Your task to perform on an android device: turn off notifications settings in the gmail app Image 0: 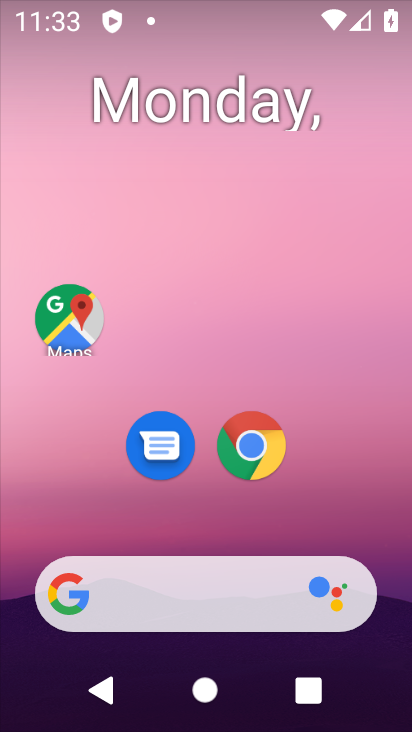
Step 0: drag from (94, 494) to (201, 66)
Your task to perform on an android device: turn off notifications settings in the gmail app Image 1: 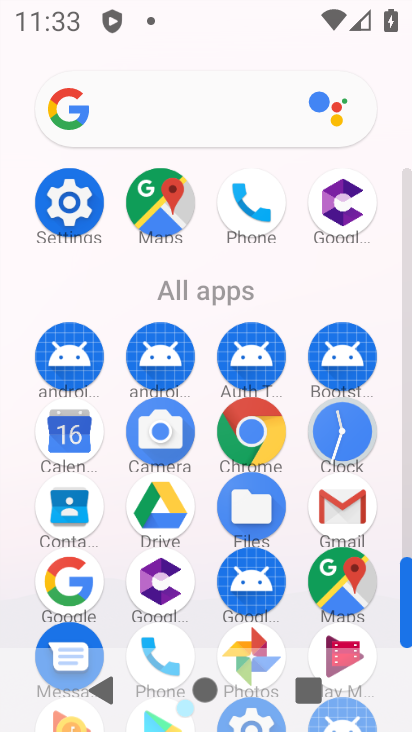
Step 1: drag from (161, 612) to (252, 398)
Your task to perform on an android device: turn off notifications settings in the gmail app Image 2: 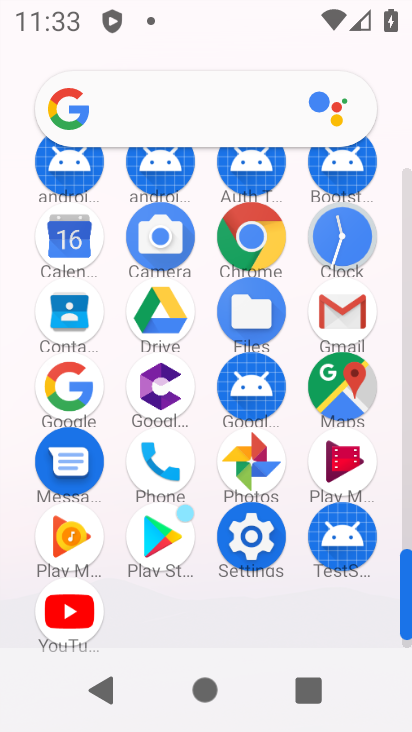
Step 2: click (354, 336)
Your task to perform on an android device: turn off notifications settings in the gmail app Image 3: 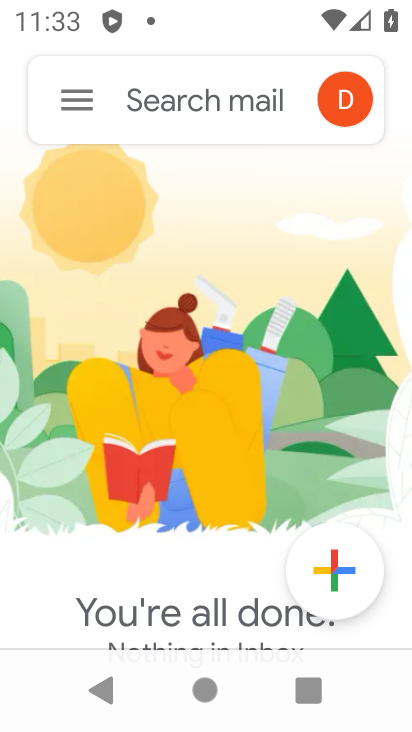
Step 3: click (83, 116)
Your task to perform on an android device: turn off notifications settings in the gmail app Image 4: 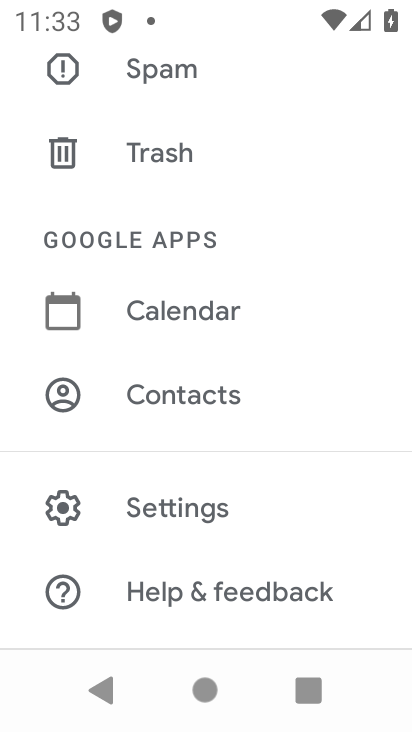
Step 4: click (237, 527)
Your task to perform on an android device: turn off notifications settings in the gmail app Image 5: 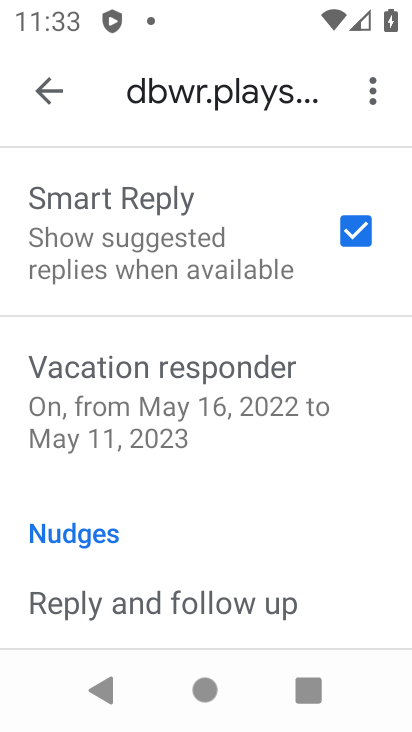
Step 5: drag from (177, 255) to (160, 652)
Your task to perform on an android device: turn off notifications settings in the gmail app Image 6: 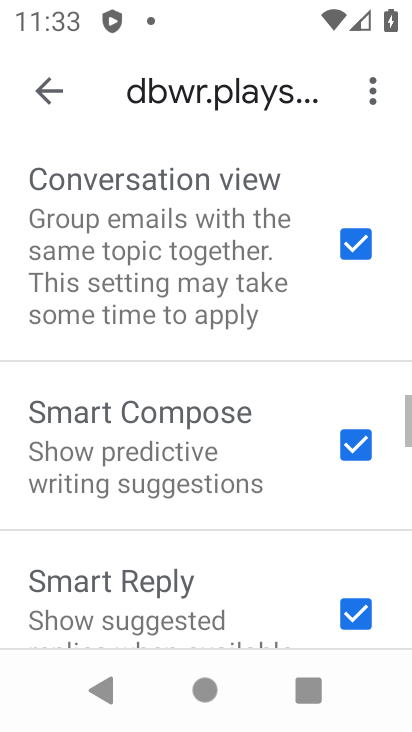
Step 6: drag from (153, 240) to (139, 594)
Your task to perform on an android device: turn off notifications settings in the gmail app Image 7: 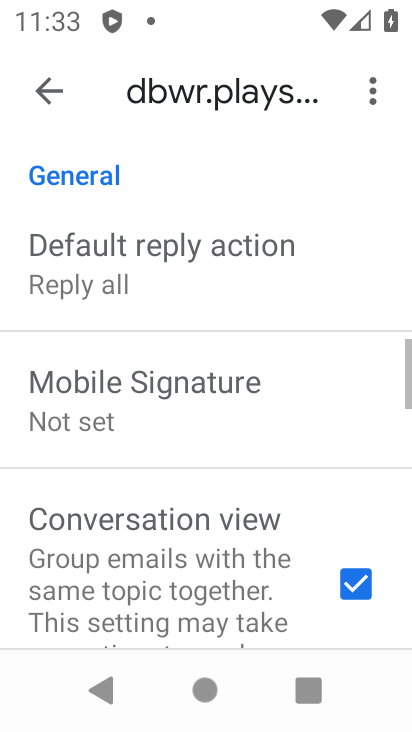
Step 7: drag from (167, 242) to (165, 599)
Your task to perform on an android device: turn off notifications settings in the gmail app Image 8: 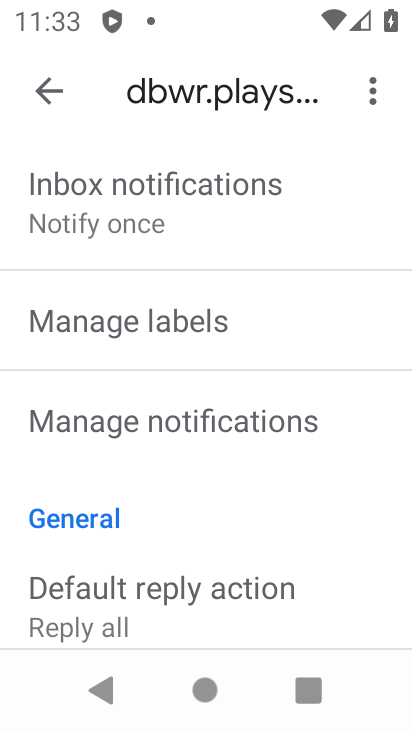
Step 8: click (199, 441)
Your task to perform on an android device: turn off notifications settings in the gmail app Image 9: 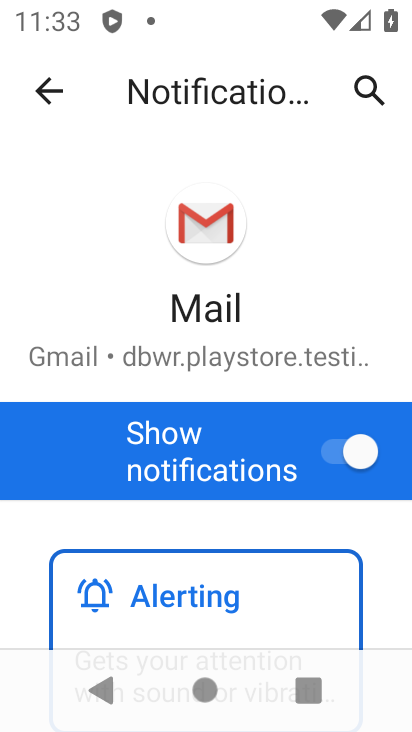
Step 9: click (337, 452)
Your task to perform on an android device: turn off notifications settings in the gmail app Image 10: 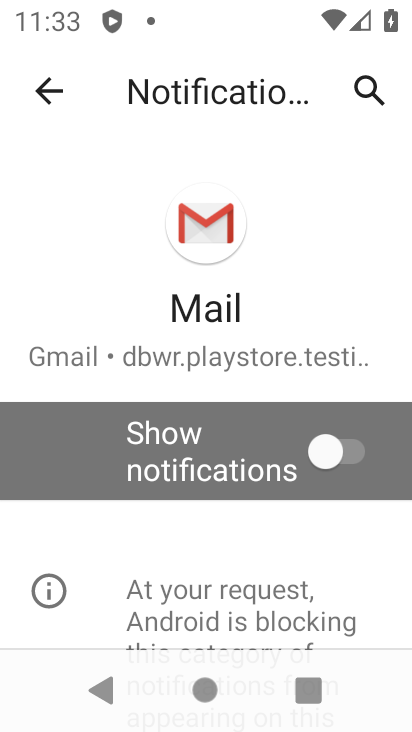
Step 10: task complete